Your task to perform on an android device: turn on translation in the chrome app Image 0: 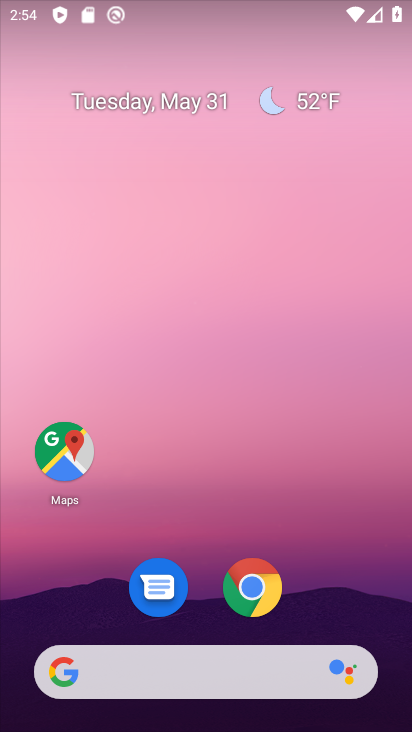
Step 0: click (257, 594)
Your task to perform on an android device: turn on translation in the chrome app Image 1: 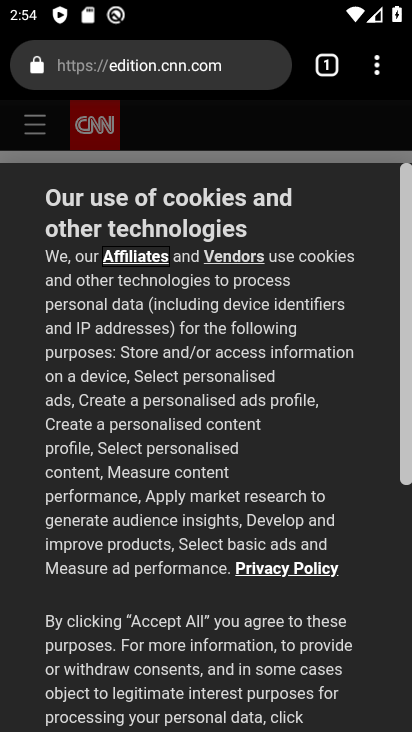
Step 1: click (383, 76)
Your task to perform on an android device: turn on translation in the chrome app Image 2: 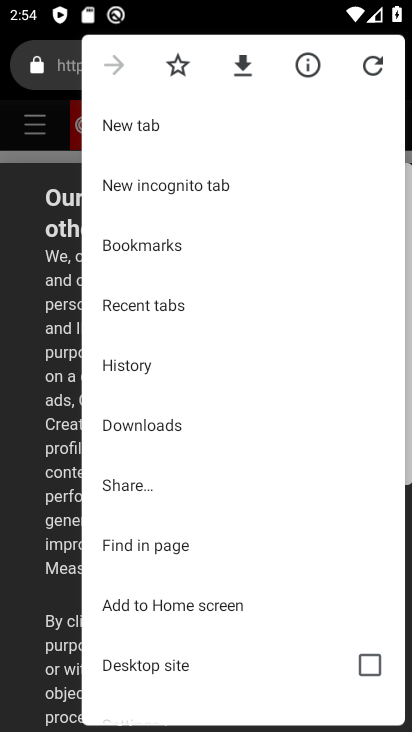
Step 2: drag from (213, 645) to (192, 148)
Your task to perform on an android device: turn on translation in the chrome app Image 3: 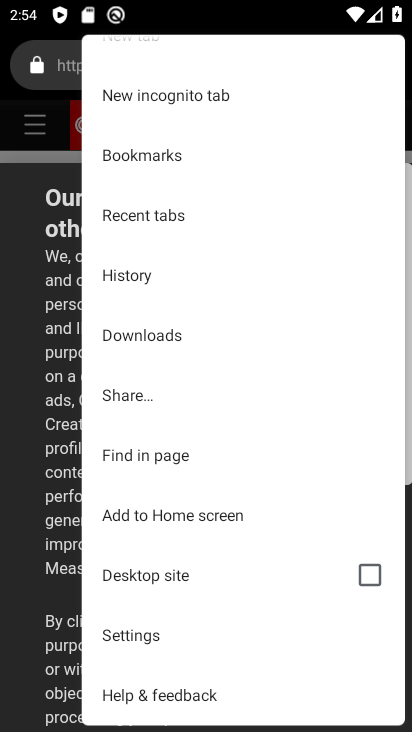
Step 3: click (169, 638)
Your task to perform on an android device: turn on translation in the chrome app Image 4: 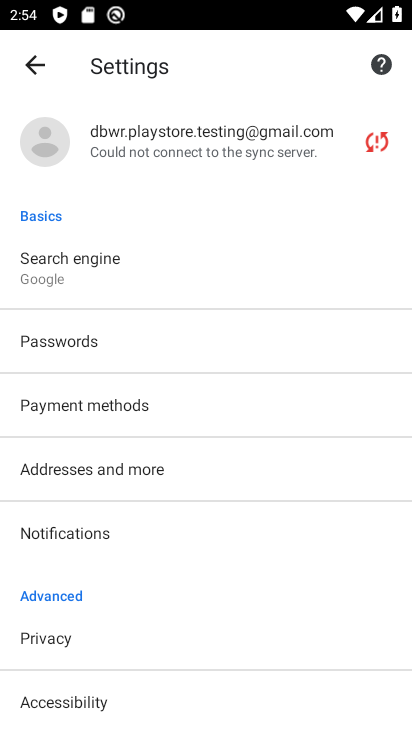
Step 4: drag from (118, 657) to (124, 85)
Your task to perform on an android device: turn on translation in the chrome app Image 5: 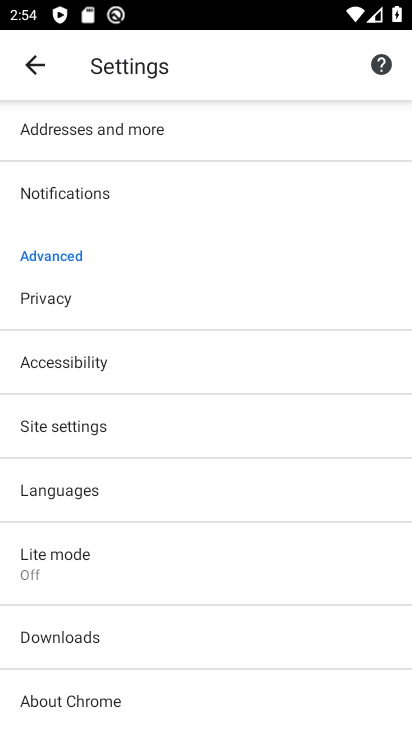
Step 5: click (84, 476)
Your task to perform on an android device: turn on translation in the chrome app Image 6: 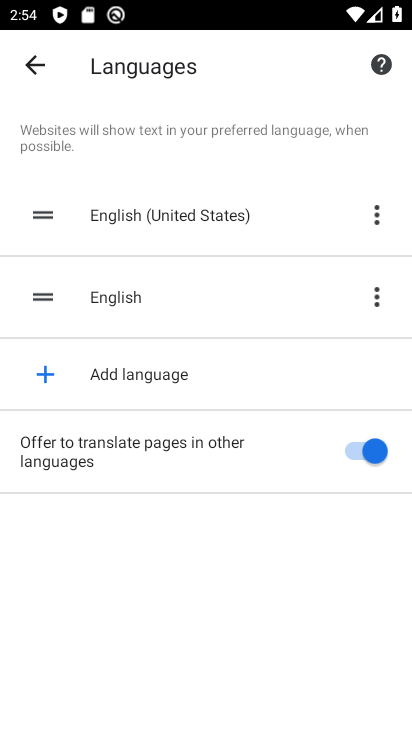
Step 6: task complete